Your task to perform on an android device: turn on wifi Image 0: 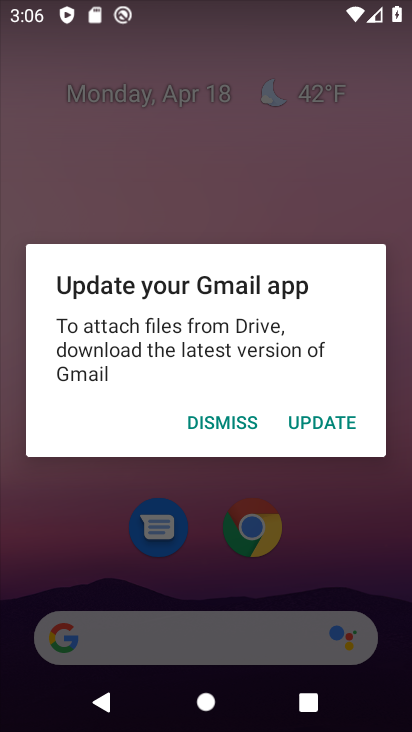
Step 0: click (237, 421)
Your task to perform on an android device: turn on wifi Image 1: 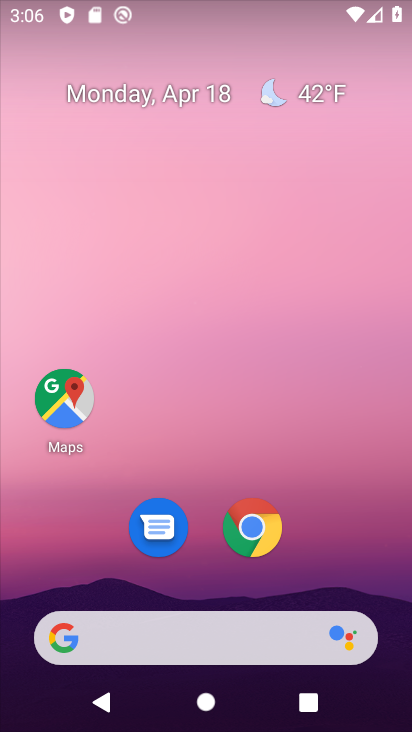
Step 1: drag from (354, 396) to (336, 4)
Your task to perform on an android device: turn on wifi Image 2: 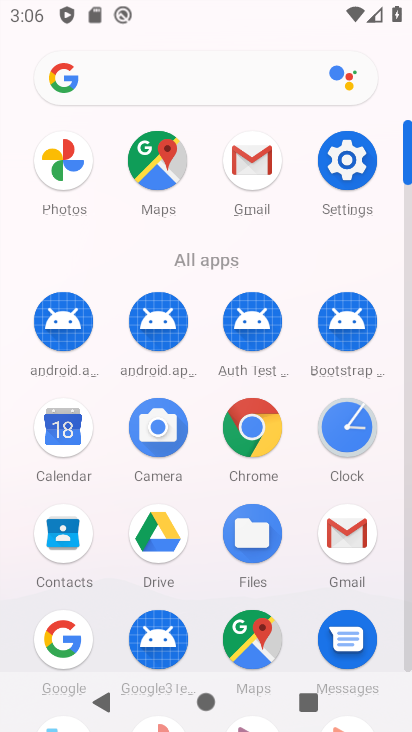
Step 2: click (356, 175)
Your task to perform on an android device: turn on wifi Image 3: 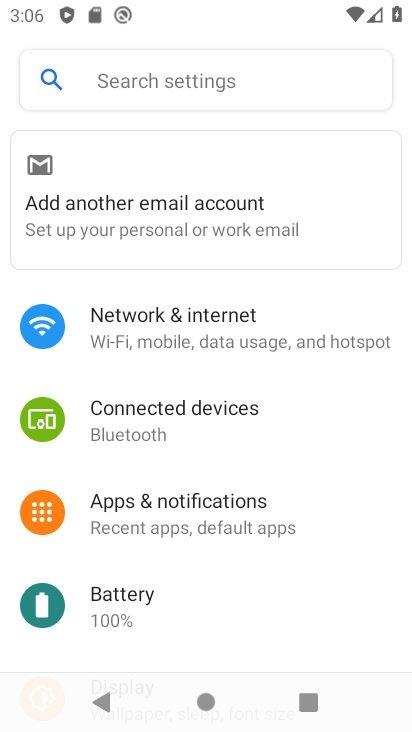
Step 3: click (221, 330)
Your task to perform on an android device: turn on wifi Image 4: 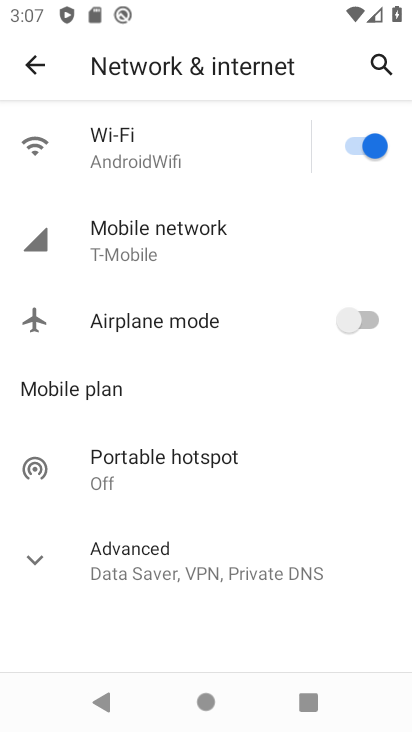
Step 4: task complete